Your task to perform on an android device: open app "Pluto TV - Live TV and Movies" (install if not already installed) and go to login screen Image 0: 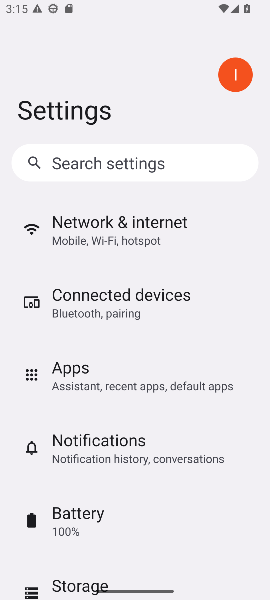
Step 0: press back button
Your task to perform on an android device: open app "Pluto TV - Live TV and Movies" (install if not already installed) and go to login screen Image 1: 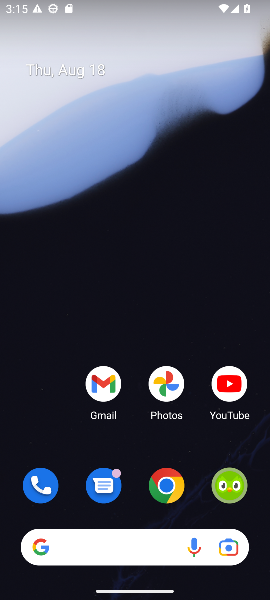
Step 1: drag from (82, 436) to (184, 16)
Your task to perform on an android device: open app "Pluto TV - Live TV and Movies" (install if not already installed) and go to login screen Image 2: 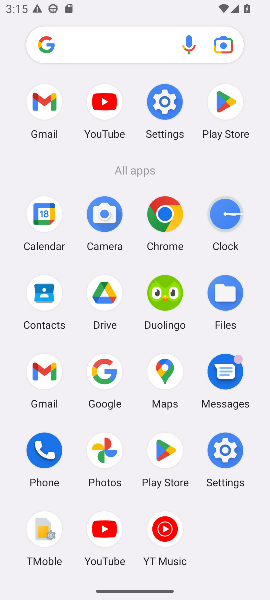
Step 2: click (226, 99)
Your task to perform on an android device: open app "Pluto TV - Live TV and Movies" (install if not already installed) and go to login screen Image 3: 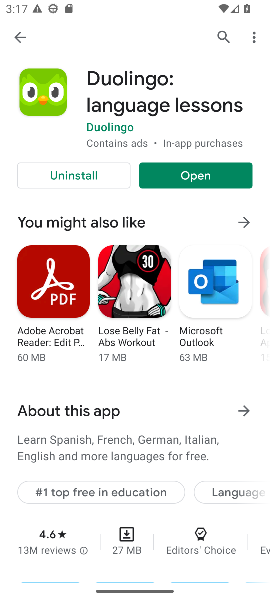
Step 3: click (228, 37)
Your task to perform on an android device: open app "Pluto TV - Live TV and Movies" (install if not already installed) and go to login screen Image 4: 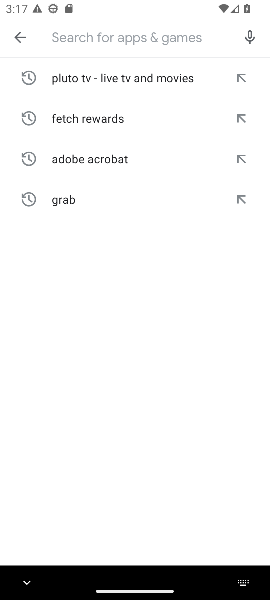
Step 4: click (119, 79)
Your task to perform on an android device: open app "Pluto TV - Live TV and Movies" (install if not already installed) and go to login screen Image 5: 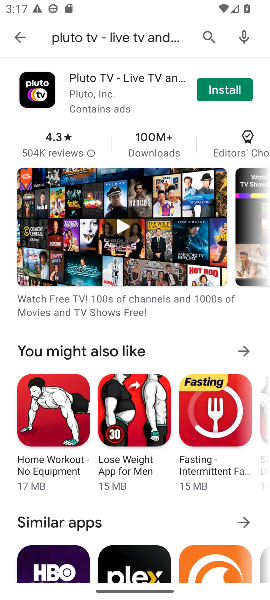
Step 5: click (228, 88)
Your task to perform on an android device: open app "Pluto TV - Live TV and Movies" (install if not already installed) and go to login screen Image 6: 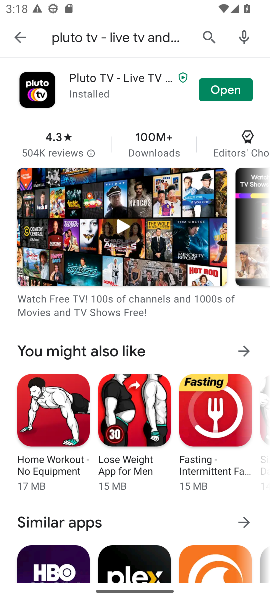
Step 6: click (217, 95)
Your task to perform on an android device: open app "Pluto TV - Live TV and Movies" (install if not already installed) and go to login screen Image 7: 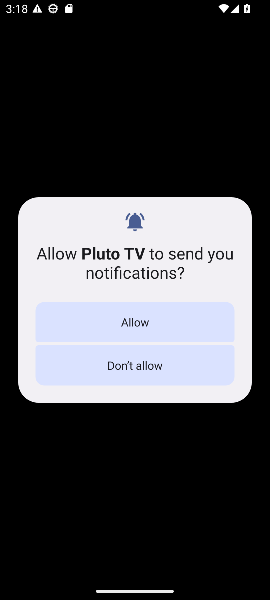
Step 7: task complete